Your task to perform on an android device: turn notification dots on Image 0: 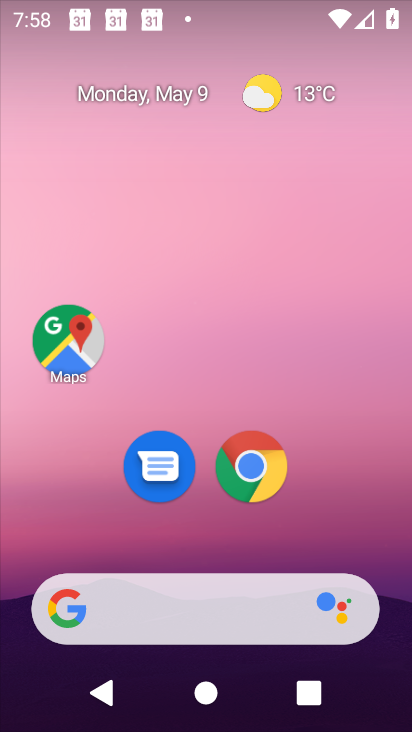
Step 0: drag from (309, 539) to (301, 267)
Your task to perform on an android device: turn notification dots on Image 1: 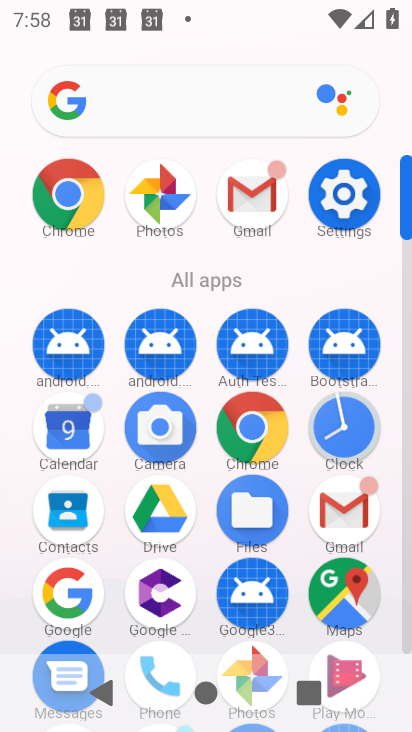
Step 1: click (329, 198)
Your task to perform on an android device: turn notification dots on Image 2: 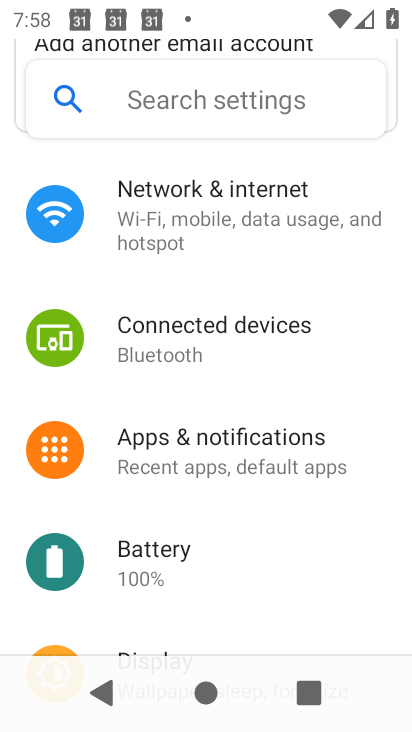
Step 2: click (243, 96)
Your task to perform on an android device: turn notification dots on Image 3: 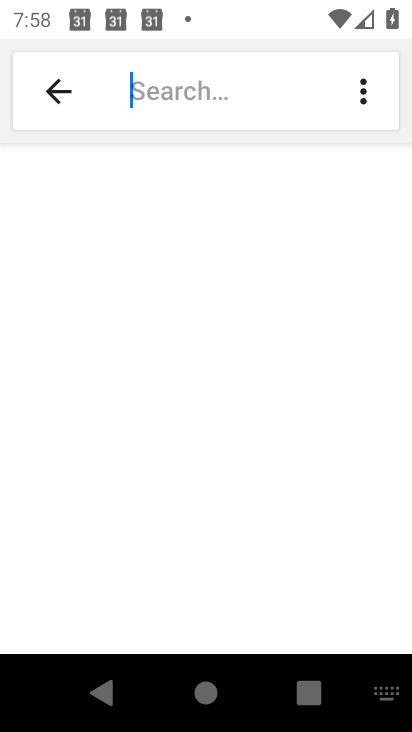
Step 3: click (270, 100)
Your task to perform on an android device: turn notification dots on Image 4: 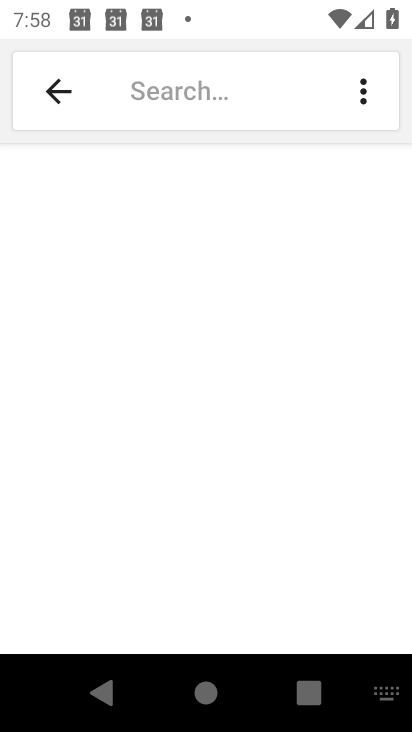
Step 4: type "notification dots "
Your task to perform on an android device: turn notification dots on Image 5: 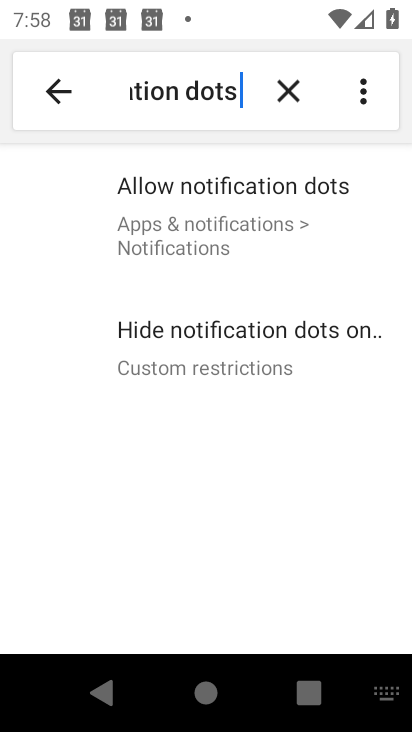
Step 5: click (262, 216)
Your task to perform on an android device: turn notification dots on Image 6: 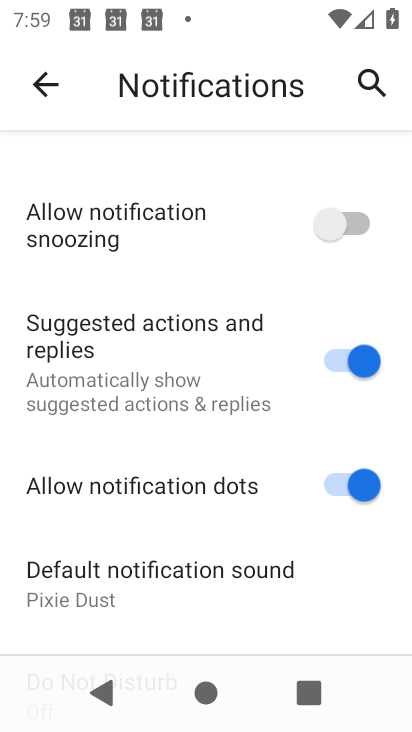
Step 6: task complete